Your task to perform on an android device: Open the calendar app, open the side menu, and click the "Day" option Image 0: 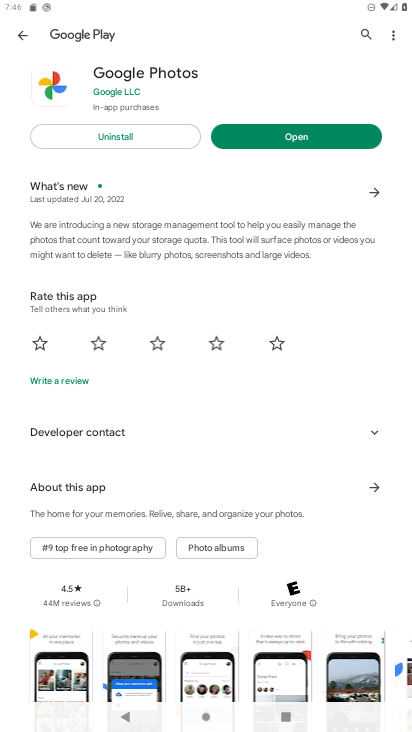
Step 0: press home button
Your task to perform on an android device: Open the calendar app, open the side menu, and click the "Day" option Image 1: 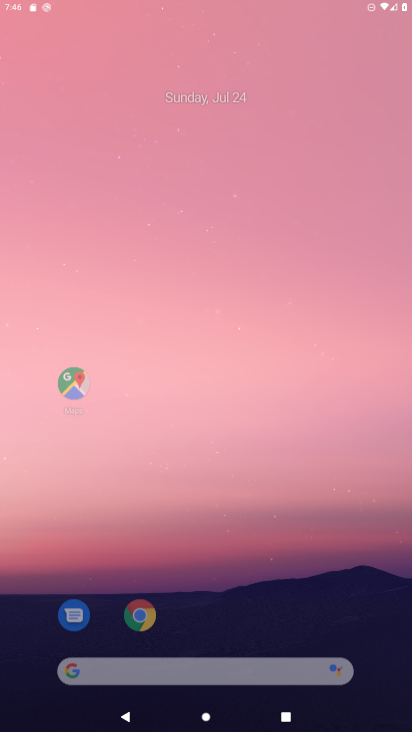
Step 1: press home button
Your task to perform on an android device: Open the calendar app, open the side menu, and click the "Day" option Image 2: 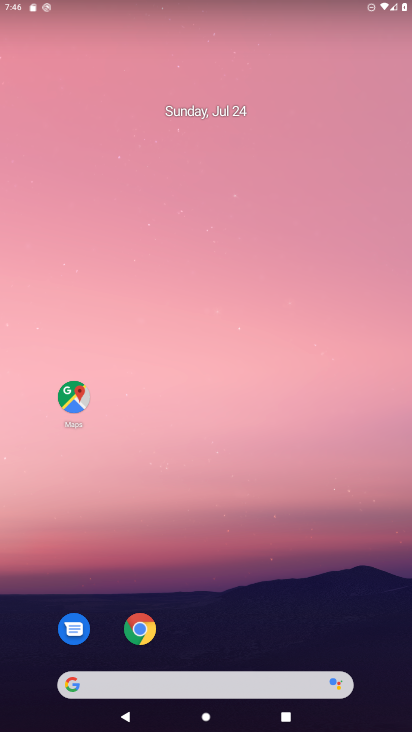
Step 2: drag from (358, 586) to (4, 0)
Your task to perform on an android device: Open the calendar app, open the side menu, and click the "Day" option Image 3: 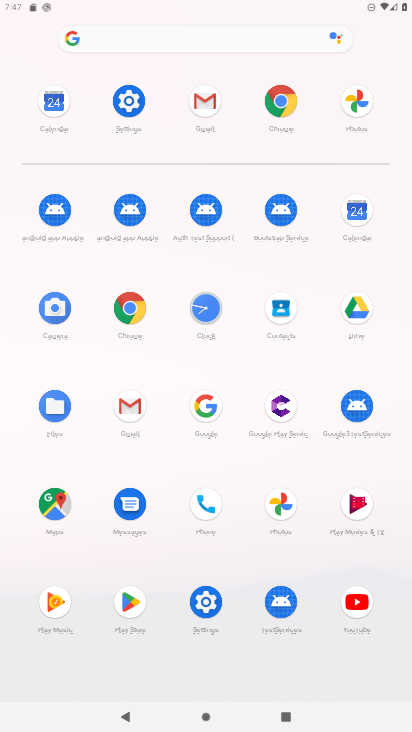
Step 3: click (342, 212)
Your task to perform on an android device: Open the calendar app, open the side menu, and click the "Day" option Image 4: 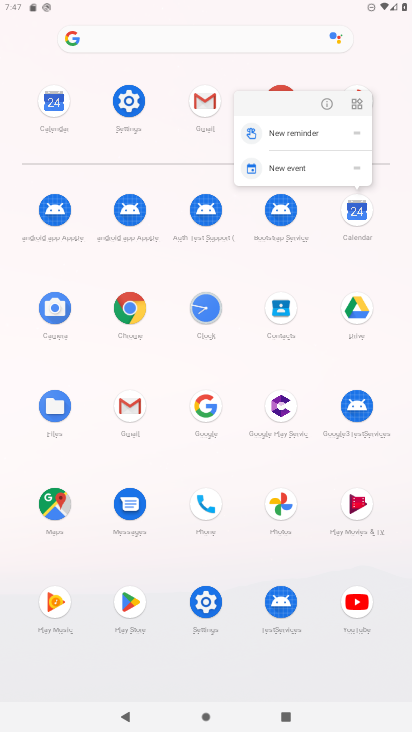
Step 4: click (342, 212)
Your task to perform on an android device: Open the calendar app, open the side menu, and click the "Day" option Image 5: 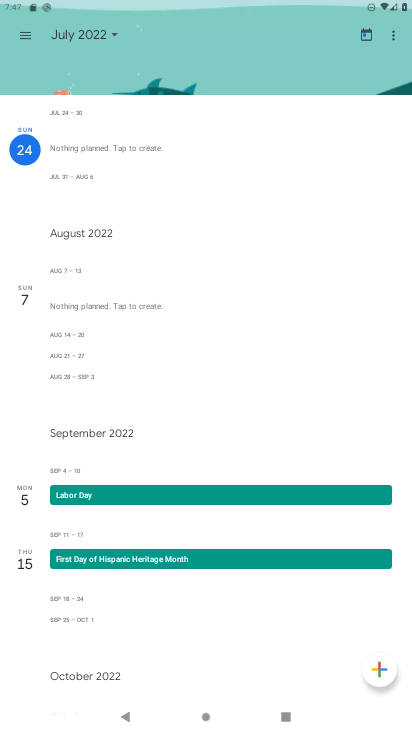
Step 5: click (22, 39)
Your task to perform on an android device: Open the calendar app, open the side menu, and click the "Day" option Image 6: 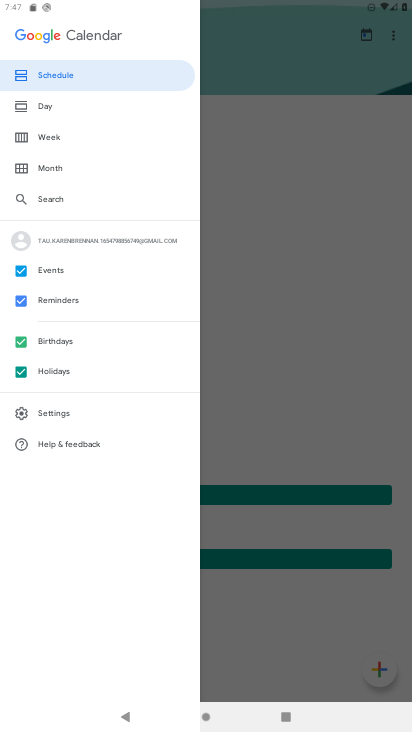
Step 6: click (55, 111)
Your task to perform on an android device: Open the calendar app, open the side menu, and click the "Day" option Image 7: 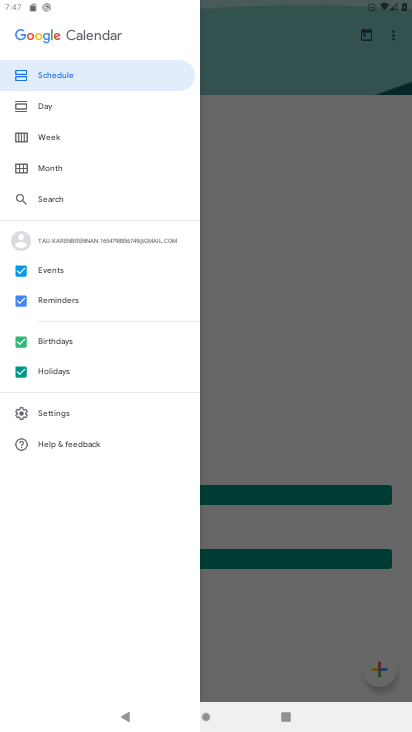
Step 7: click (42, 112)
Your task to perform on an android device: Open the calendar app, open the side menu, and click the "Day" option Image 8: 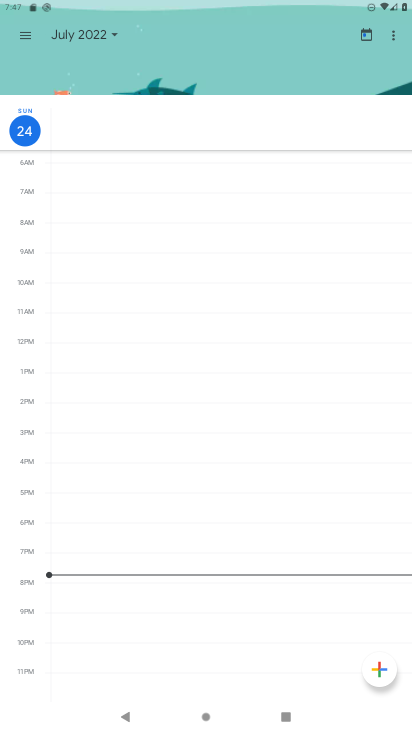
Step 8: task complete